Your task to perform on an android device: turn notification dots off Image 0: 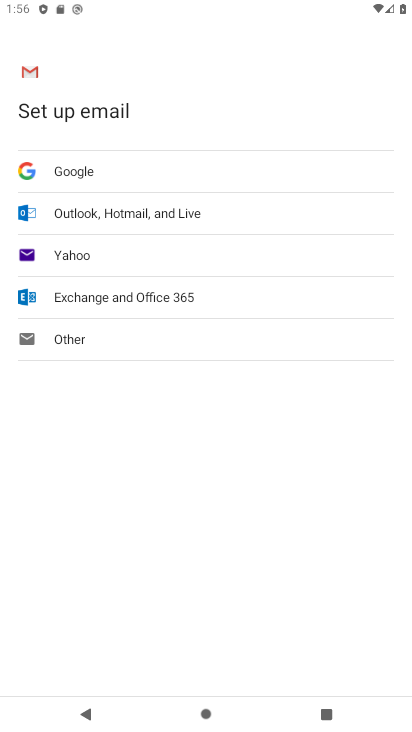
Step 0: press back button
Your task to perform on an android device: turn notification dots off Image 1: 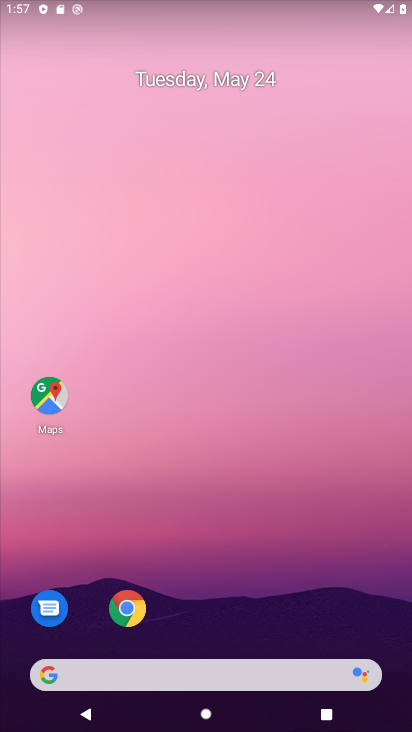
Step 1: drag from (222, 616) to (228, 76)
Your task to perform on an android device: turn notification dots off Image 2: 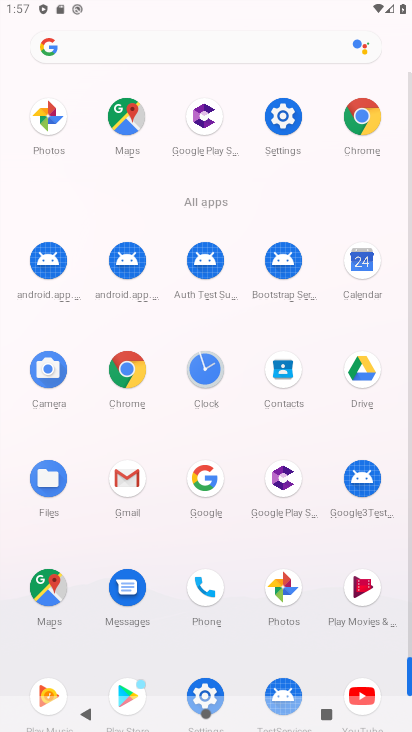
Step 2: drag from (11, 552) to (42, 253)
Your task to perform on an android device: turn notification dots off Image 3: 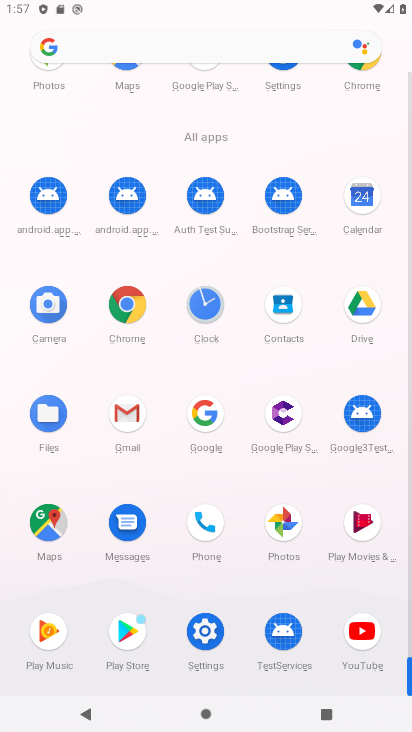
Step 3: click (203, 634)
Your task to perform on an android device: turn notification dots off Image 4: 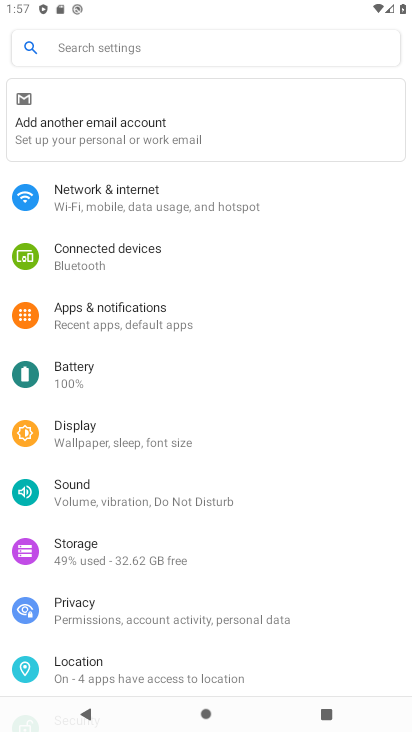
Step 4: click (141, 314)
Your task to perform on an android device: turn notification dots off Image 5: 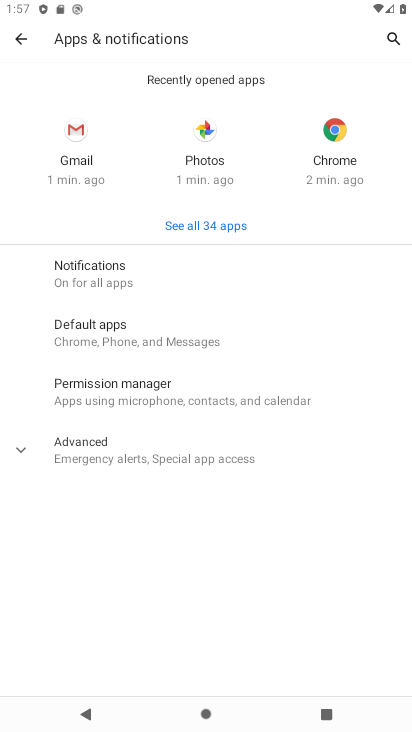
Step 5: click (36, 445)
Your task to perform on an android device: turn notification dots off Image 6: 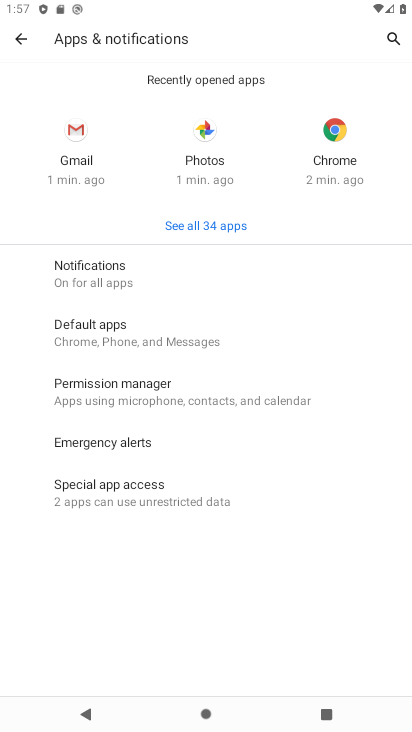
Step 6: drag from (241, 559) to (248, 251)
Your task to perform on an android device: turn notification dots off Image 7: 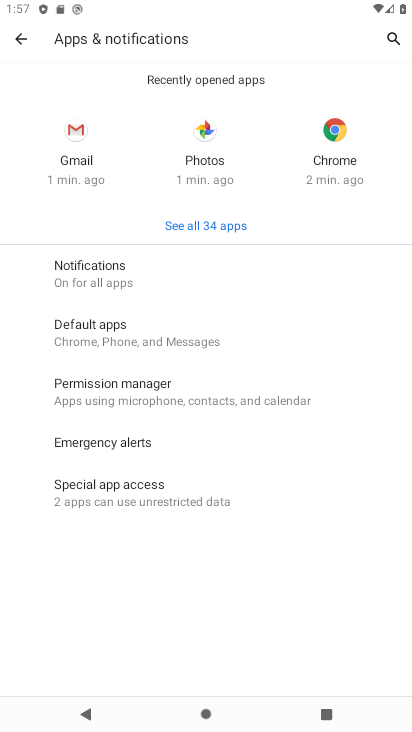
Step 7: click (133, 267)
Your task to perform on an android device: turn notification dots off Image 8: 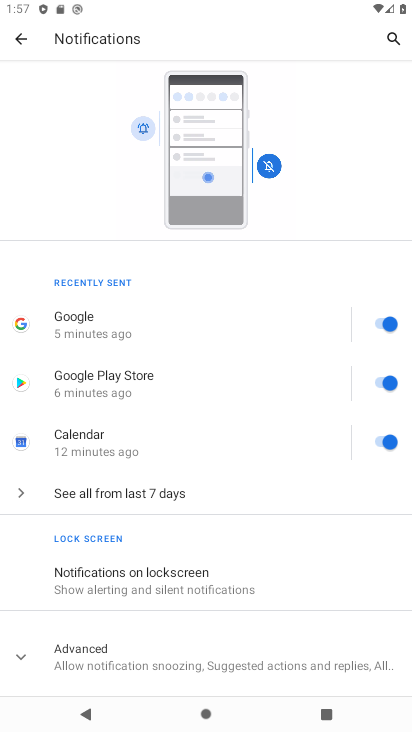
Step 8: drag from (191, 530) to (198, 129)
Your task to perform on an android device: turn notification dots off Image 9: 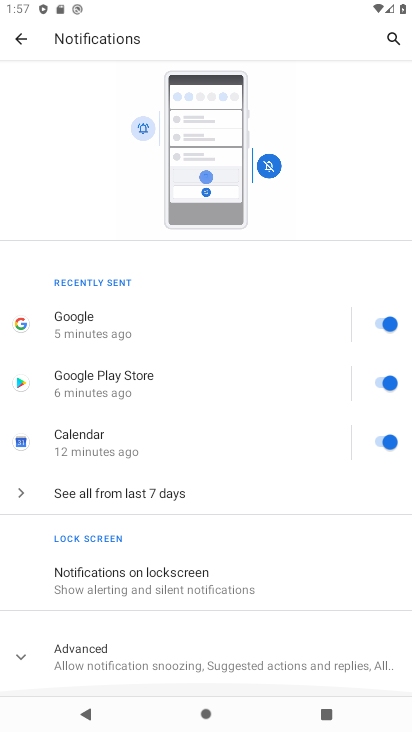
Step 9: click (91, 663)
Your task to perform on an android device: turn notification dots off Image 10: 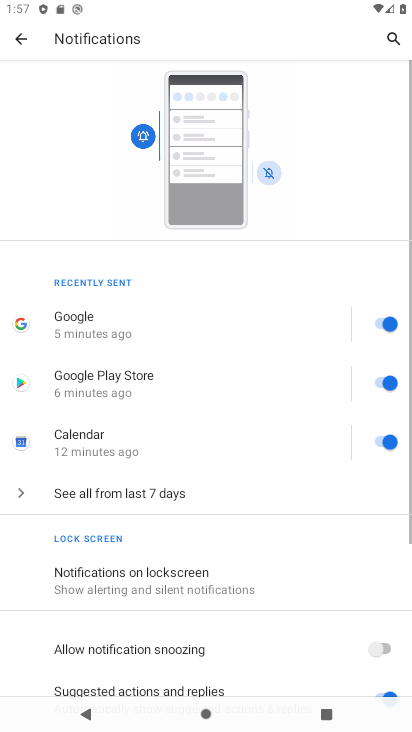
Step 10: drag from (236, 589) to (246, 221)
Your task to perform on an android device: turn notification dots off Image 11: 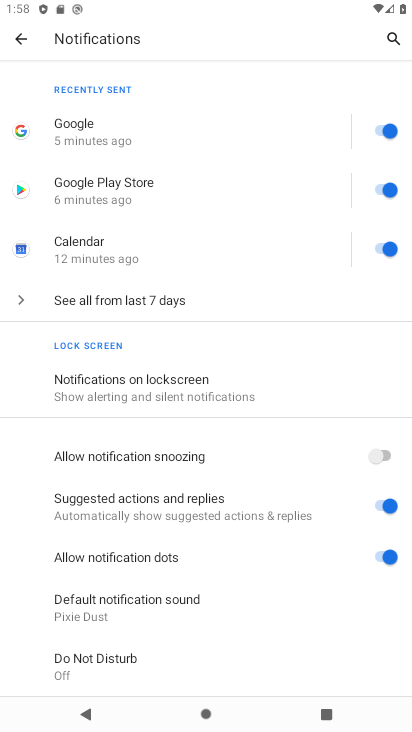
Step 11: click (384, 553)
Your task to perform on an android device: turn notification dots off Image 12: 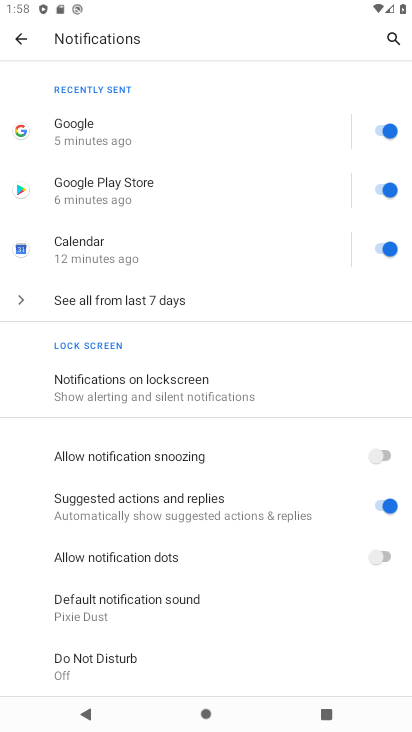
Step 12: task complete